Your task to perform on an android device: add a contact in the contacts app Image 0: 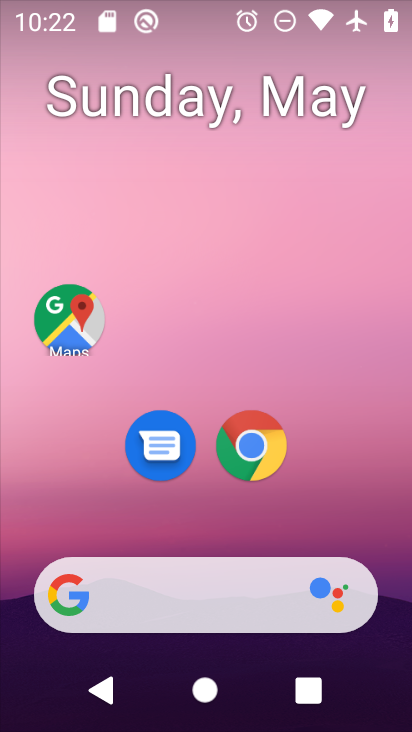
Step 0: drag from (259, 640) to (292, 298)
Your task to perform on an android device: add a contact in the contacts app Image 1: 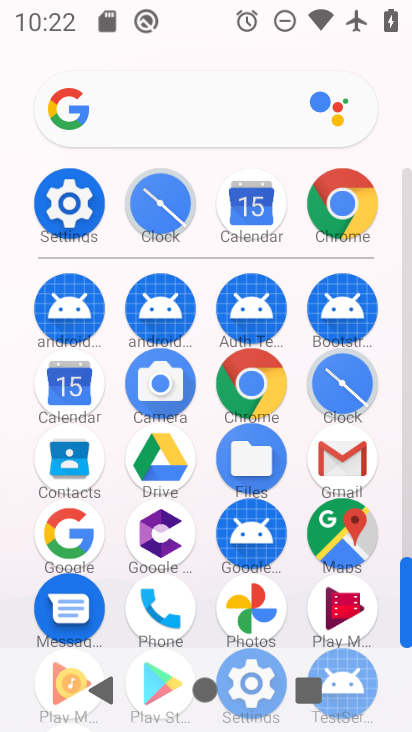
Step 1: click (76, 476)
Your task to perform on an android device: add a contact in the contacts app Image 2: 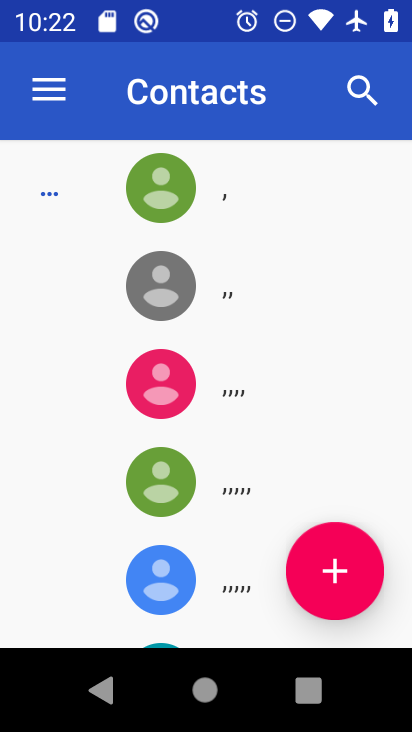
Step 2: click (353, 550)
Your task to perform on an android device: add a contact in the contacts app Image 3: 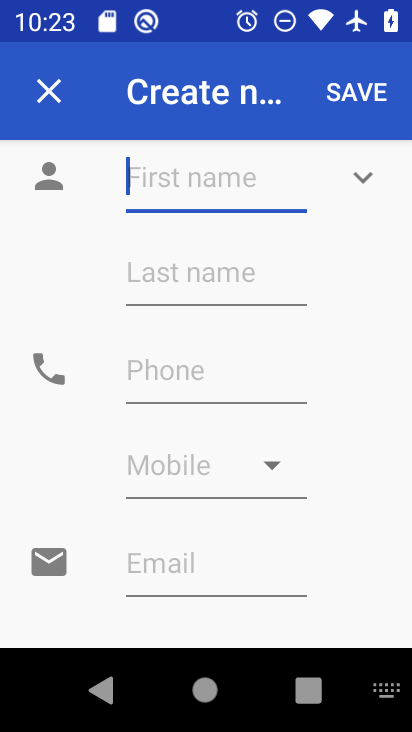
Step 3: type "giugiu"
Your task to perform on an android device: add a contact in the contacts app Image 4: 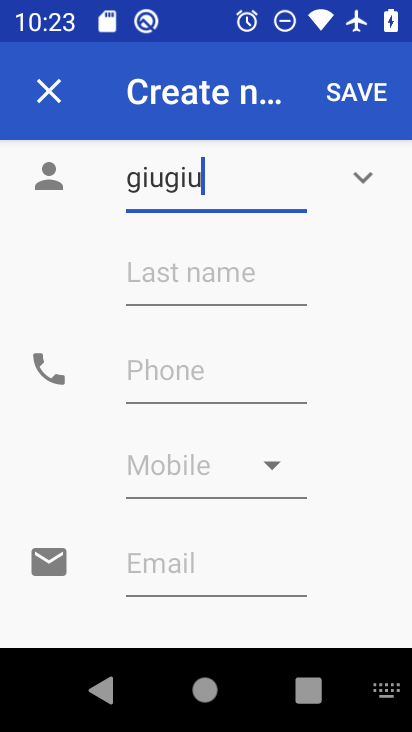
Step 4: type ""
Your task to perform on an android device: add a contact in the contacts app Image 5: 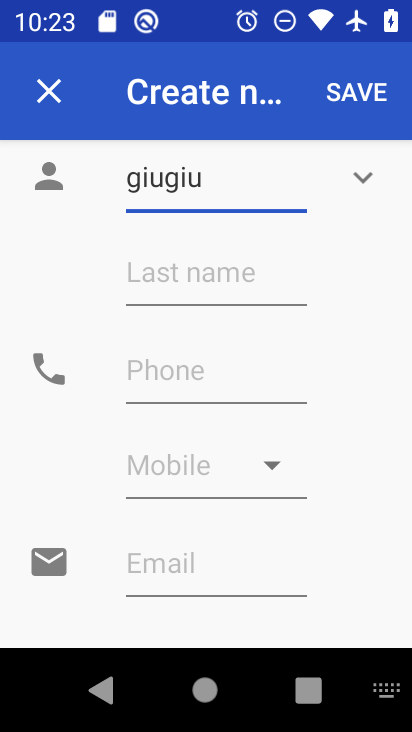
Step 5: click (168, 360)
Your task to perform on an android device: add a contact in the contacts app Image 6: 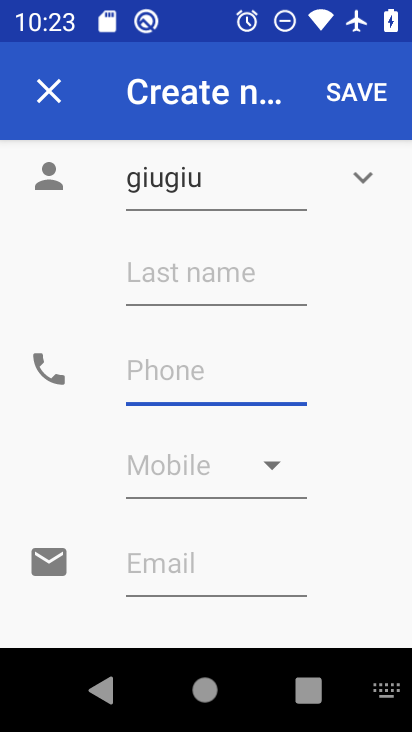
Step 6: type "7969666696"
Your task to perform on an android device: add a contact in the contacts app Image 7: 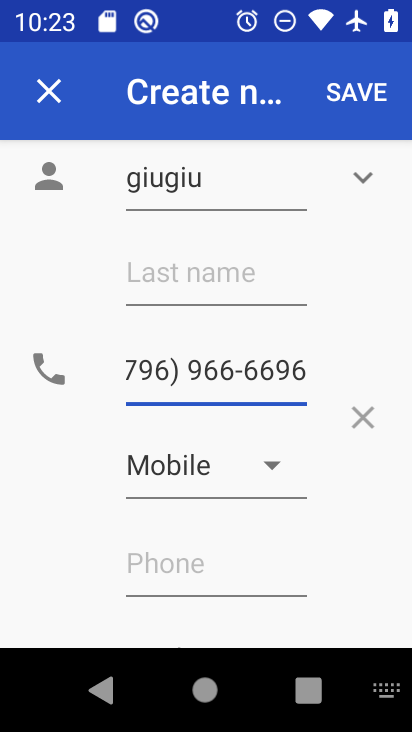
Step 7: click (359, 92)
Your task to perform on an android device: add a contact in the contacts app Image 8: 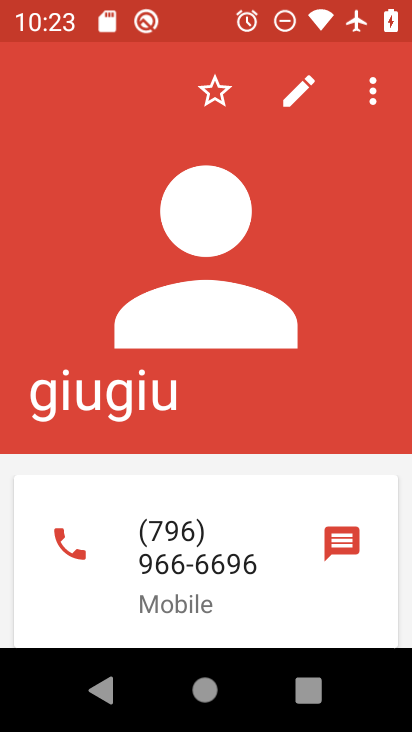
Step 8: task complete